Your task to perform on an android device: change your default location settings in chrome Image 0: 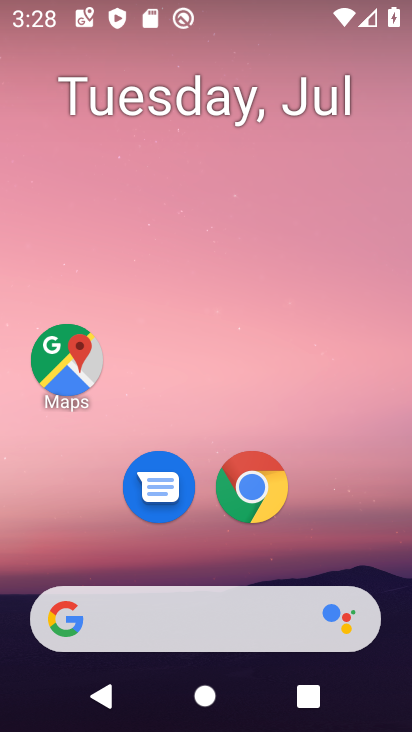
Step 0: click (266, 466)
Your task to perform on an android device: change your default location settings in chrome Image 1: 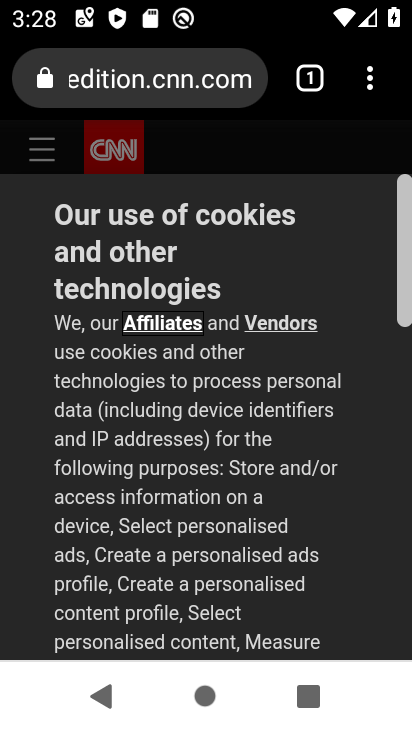
Step 1: drag from (369, 82) to (104, 560)
Your task to perform on an android device: change your default location settings in chrome Image 2: 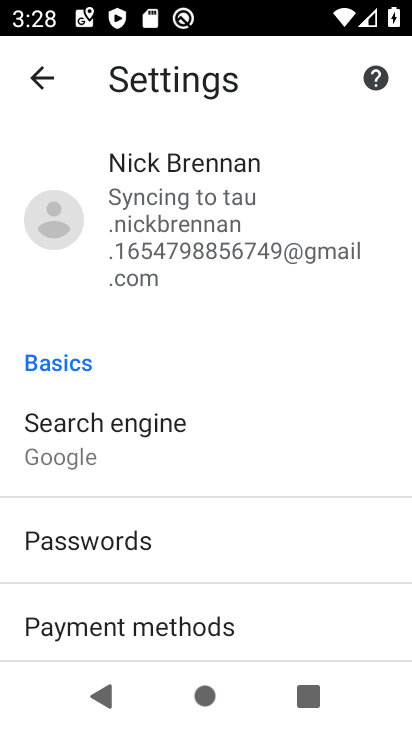
Step 2: drag from (228, 253) to (269, 42)
Your task to perform on an android device: change your default location settings in chrome Image 3: 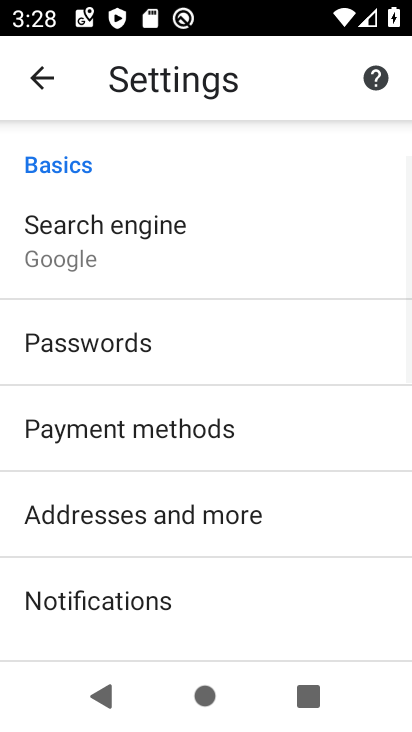
Step 3: drag from (144, 536) to (276, 0)
Your task to perform on an android device: change your default location settings in chrome Image 4: 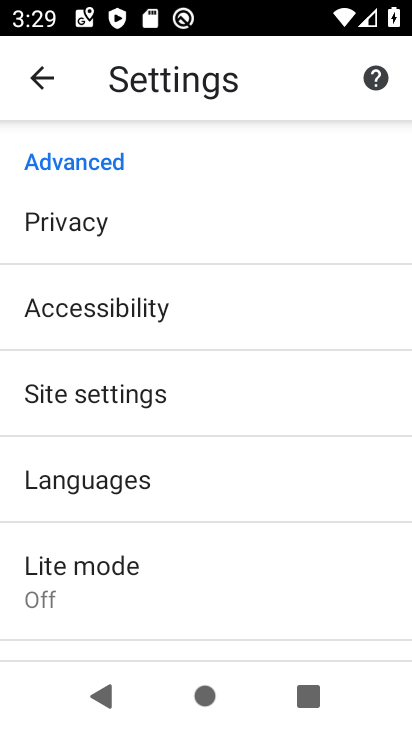
Step 4: drag from (144, 584) to (262, 145)
Your task to perform on an android device: change your default location settings in chrome Image 5: 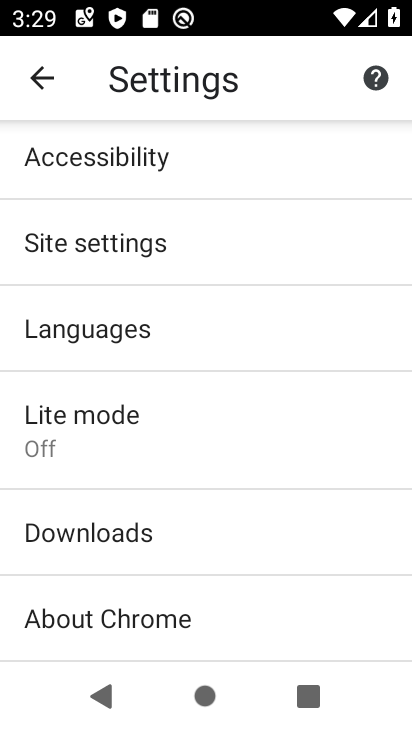
Step 5: click (105, 250)
Your task to perform on an android device: change your default location settings in chrome Image 6: 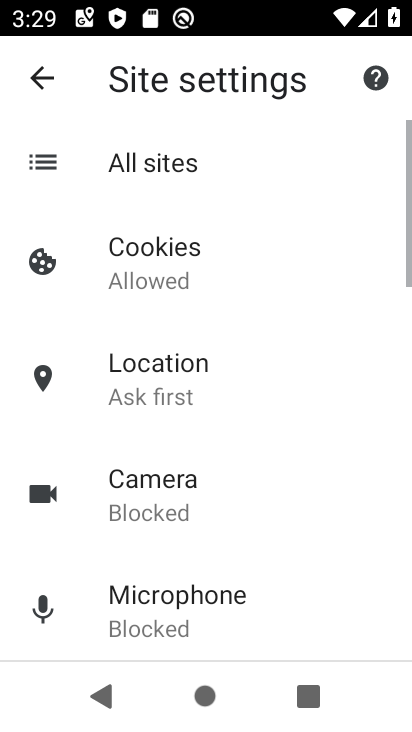
Step 6: click (184, 394)
Your task to perform on an android device: change your default location settings in chrome Image 7: 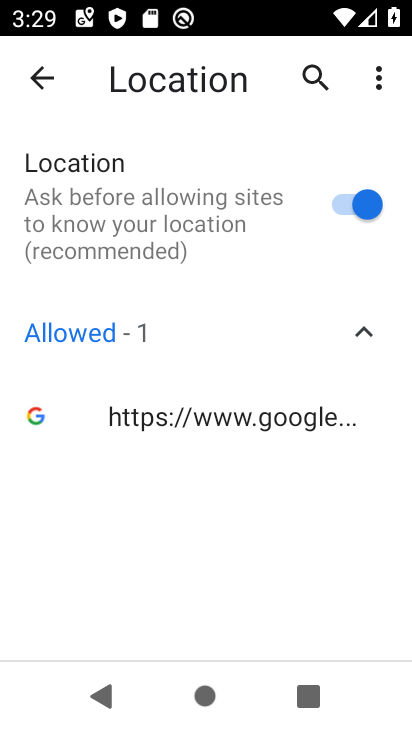
Step 7: task complete